Your task to perform on an android device: Search for seafood restaurants on Google Maps Image 0: 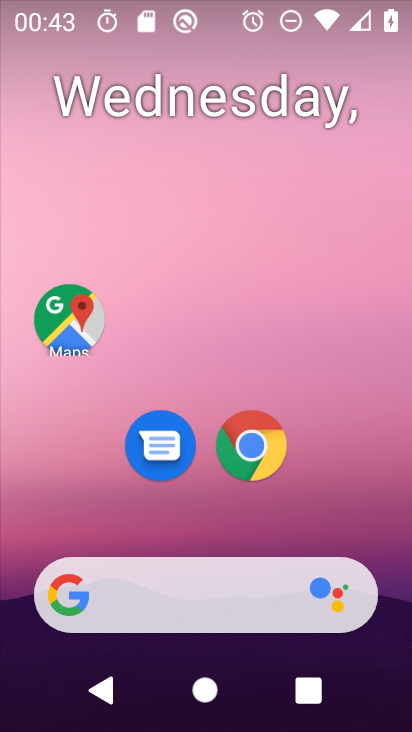
Step 0: click (61, 336)
Your task to perform on an android device: Search for seafood restaurants on Google Maps Image 1: 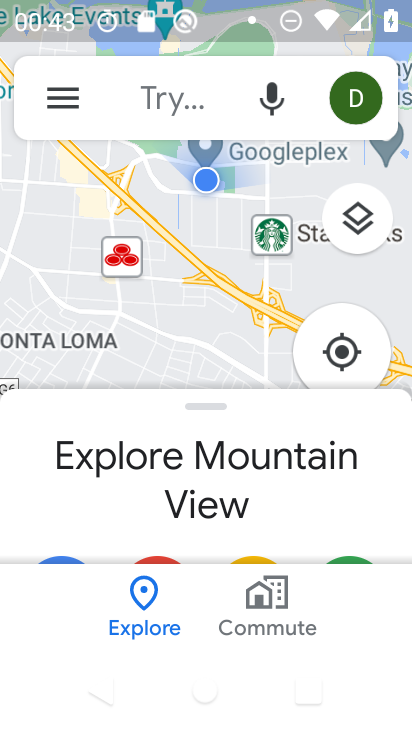
Step 1: click (148, 82)
Your task to perform on an android device: Search for seafood restaurants on Google Maps Image 2: 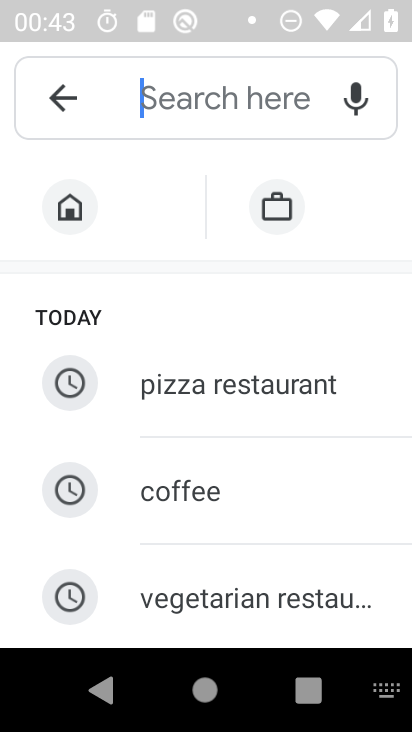
Step 2: type "seafood restaurants"
Your task to perform on an android device: Search for seafood restaurants on Google Maps Image 3: 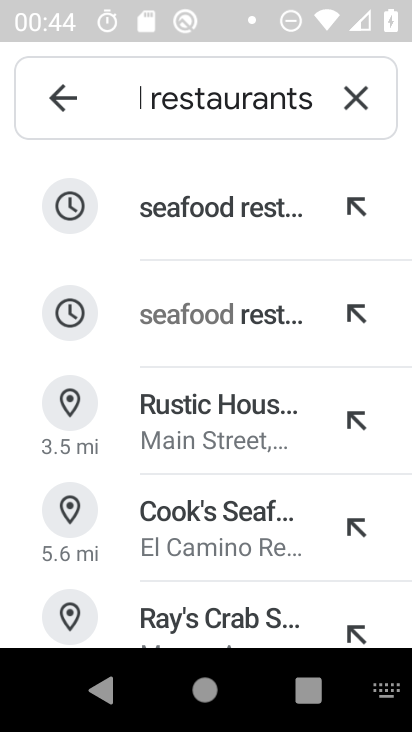
Step 3: click (250, 206)
Your task to perform on an android device: Search for seafood restaurants on Google Maps Image 4: 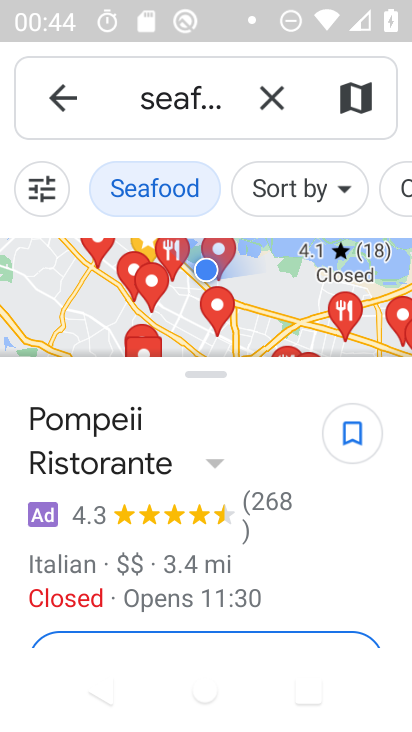
Step 4: task complete